Your task to perform on an android device: check android version Image 0: 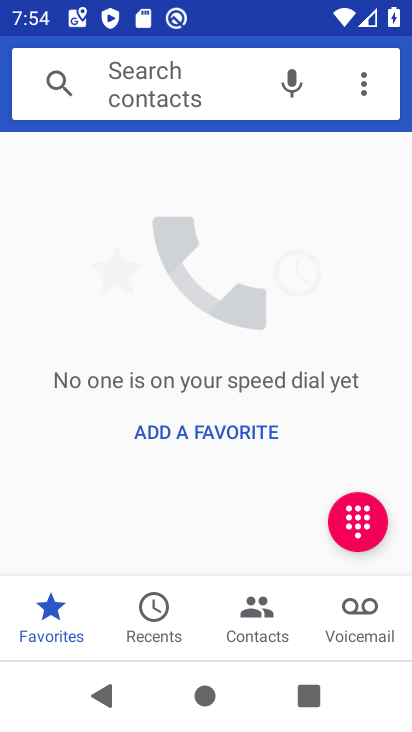
Step 0: drag from (253, 531) to (236, 159)
Your task to perform on an android device: check android version Image 1: 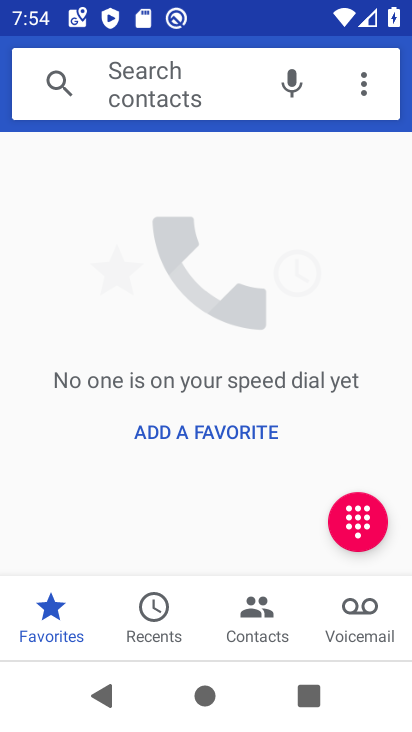
Step 1: press home button
Your task to perform on an android device: check android version Image 2: 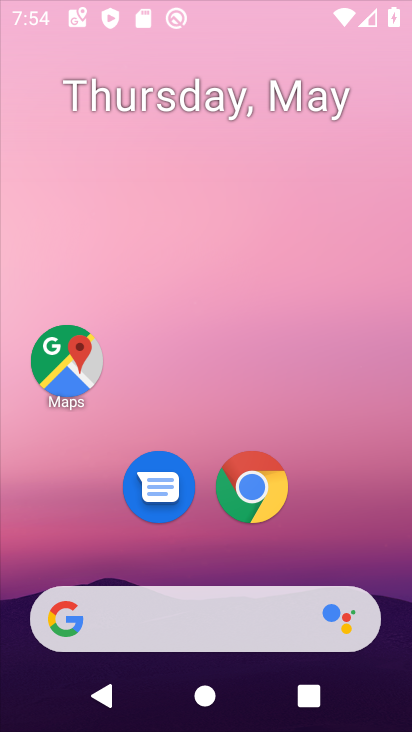
Step 2: drag from (226, 543) to (257, 154)
Your task to perform on an android device: check android version Image 3: 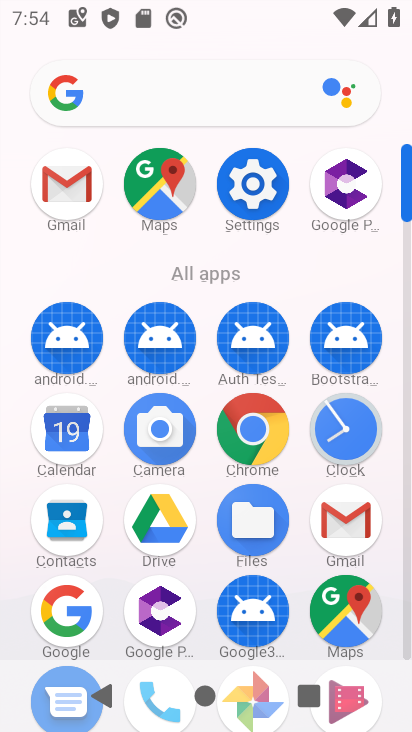
Step 3: click (268, 171)
Your task to perform on an android device: check android version Image 4: 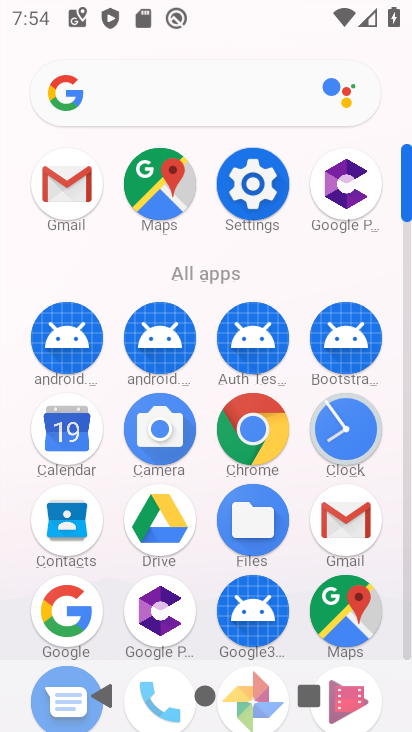
Step 4: click (268, 171)
Your task to perform on an android device: check android version Image 5: 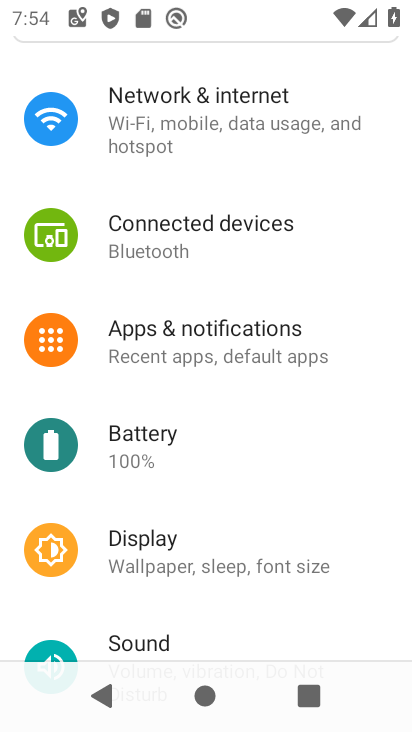
Step 5: drag from (247, 504) to (314, 112)
Your task to perform on an android device: check android version Image 6: 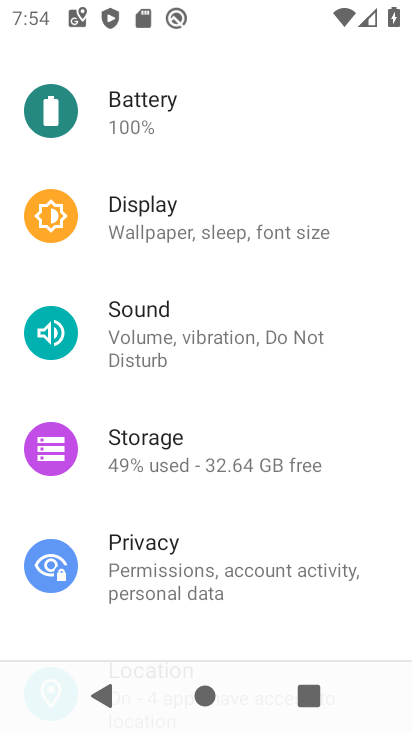
Step 6: drag from (208, 570) to (296, 16)
Your task to perform on an android device: check android version Image 7: 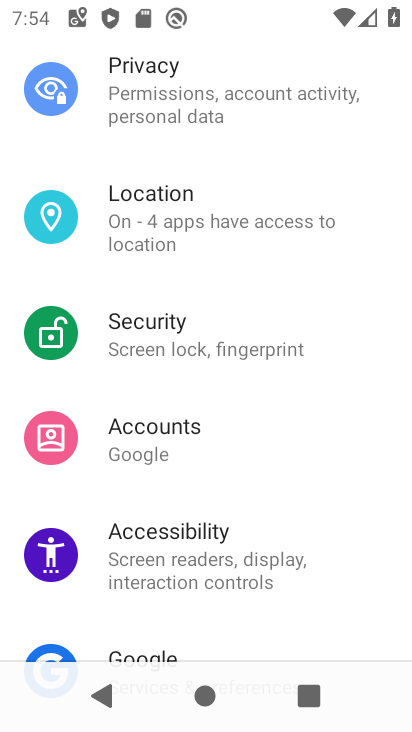
Step 7: drag from (194, 517) to (252, 0)
Your task to perform on an android device: check android version Image 8: 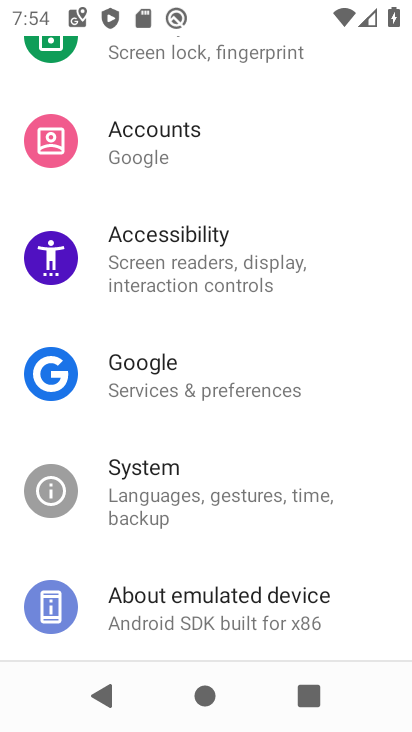
Step 8: drag from (178, 594) to (240, 80)
Your task to perform on an android device: check android version Image 9: 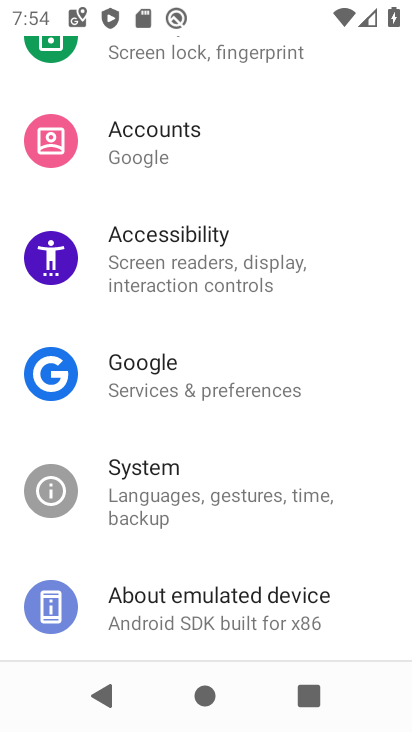
Step 9: click (193, 616)
Your task to perform on an android device: check android version Image 10: 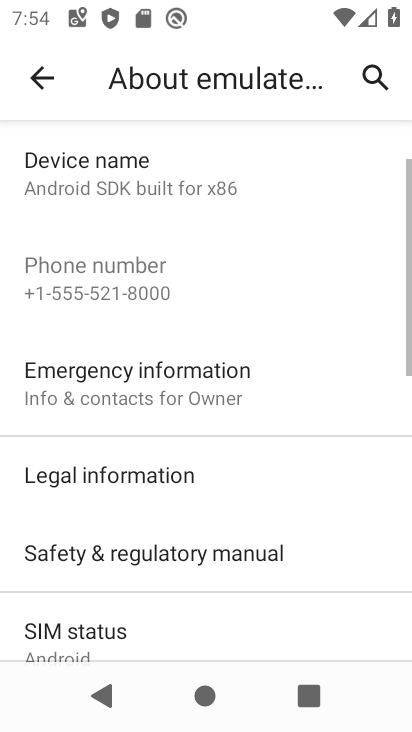
Step 10: drag from (197, 571) to (384, 49)
Your task to perform on an android device: check android version Image 11: 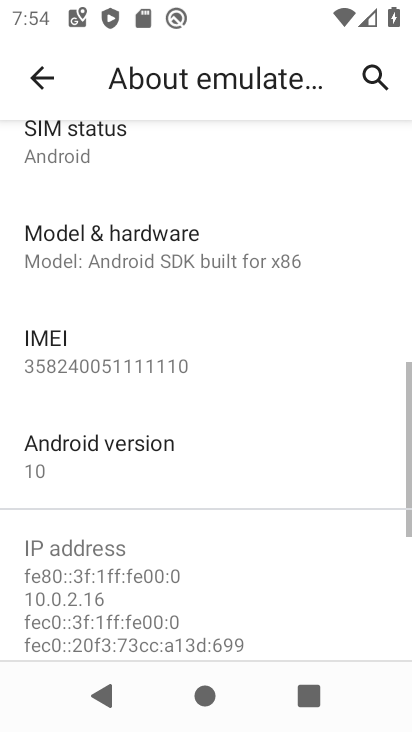
Step 11: click (102, 467)
Your task to perform on an android device: check android version Image 12: 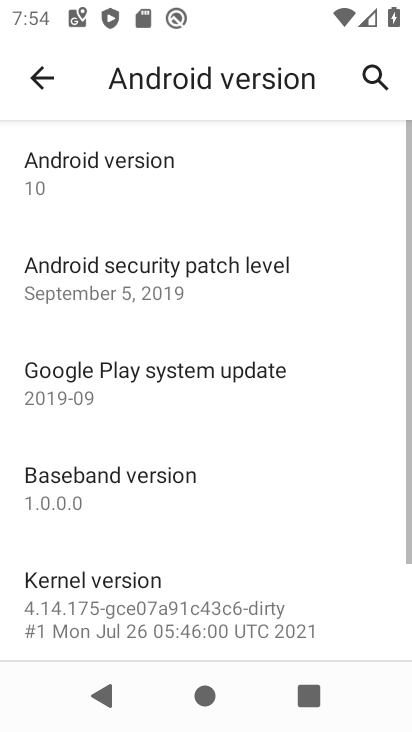
Step 12: task complete